Your task to perform on an android device: empty trash in the gmail app Image 0: 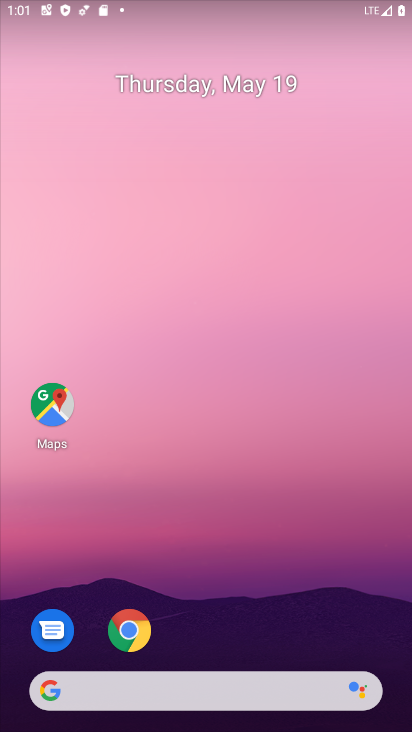
Step 0: drag from (173, 665) to (119, 88)
Your task to perform on an android device: empty trash in the gmail app Image 1: 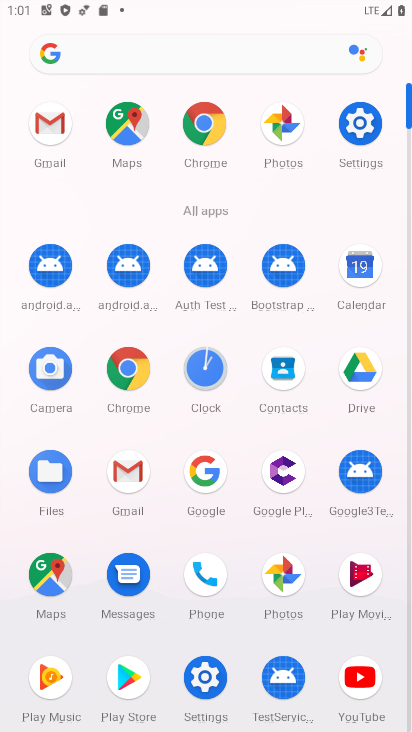
Step 1: click (280, 571)
Your task to perform on an android device: empty trash in the gmail app Image 2: 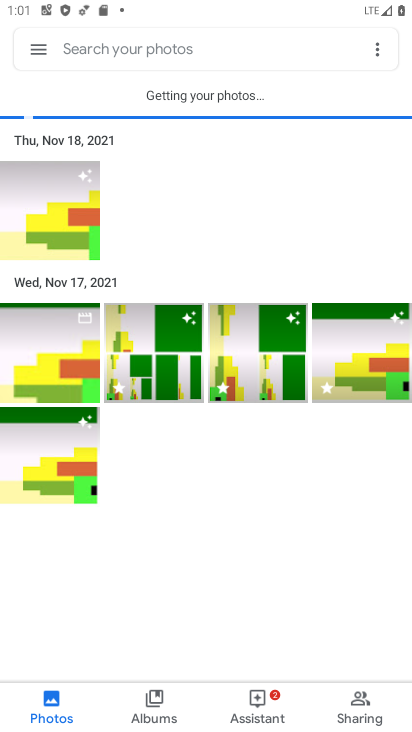
Step 2: click (36, 42)
Your task to perform on an android device: empty trash in the gmail app Image 3: 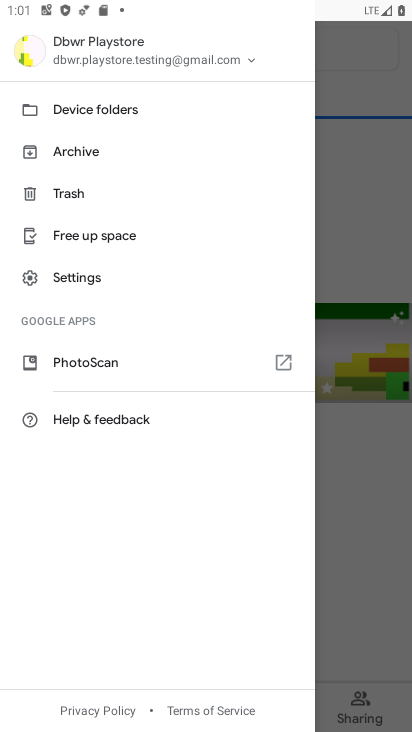
Step 3: click (52, 182)
Your task to perform on an android device: empty trash in the gmail app Image 4: 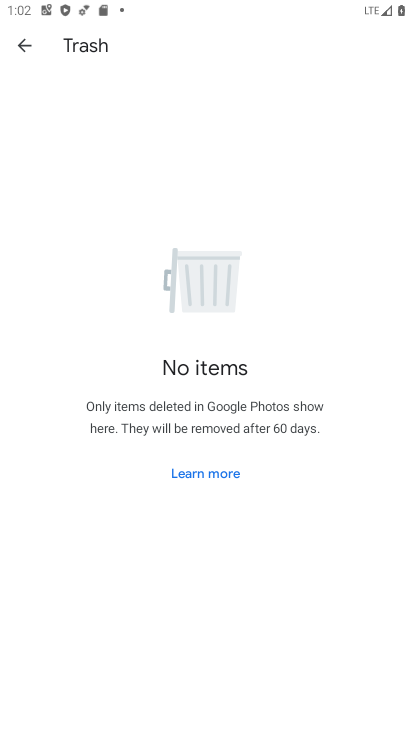
Step 4: task complete